Your task to perform on an android device: Open maps Image 0: 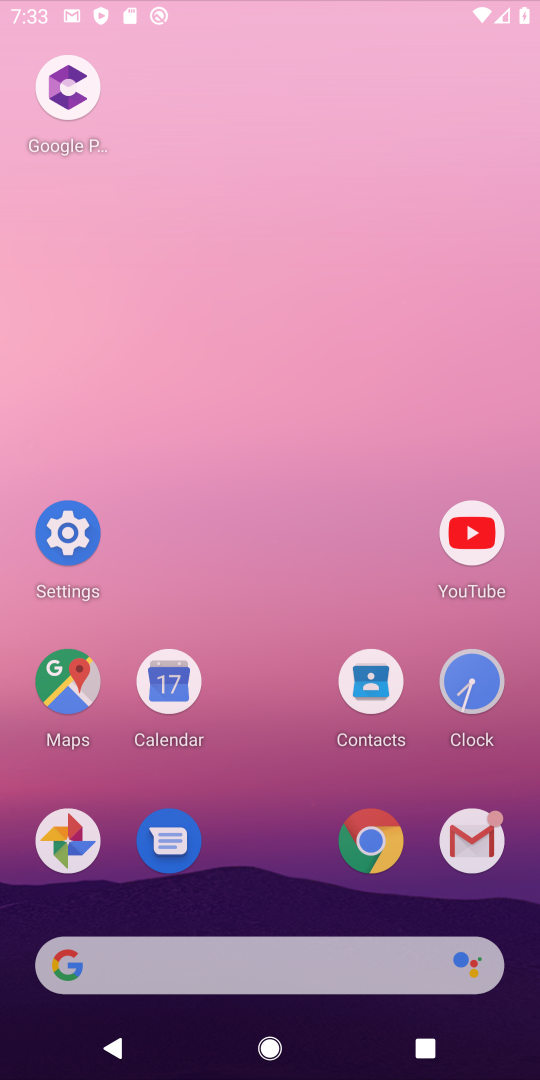
Step 0: press home button
Your task to perform on an android device: Open maps Image 1: 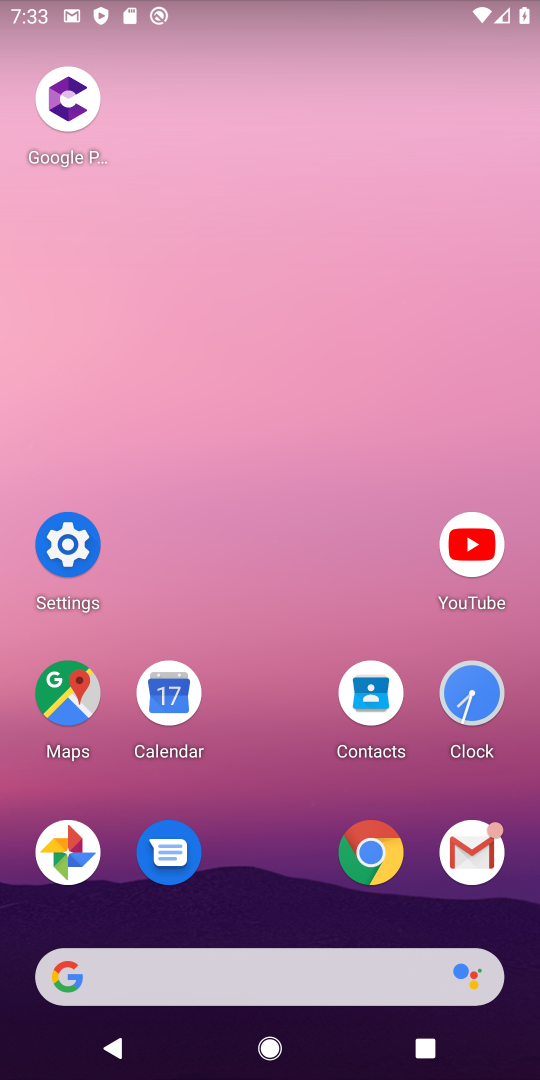
Step 1: click (58, 695)
Your task to perform on an android device: Open maps Image 2: 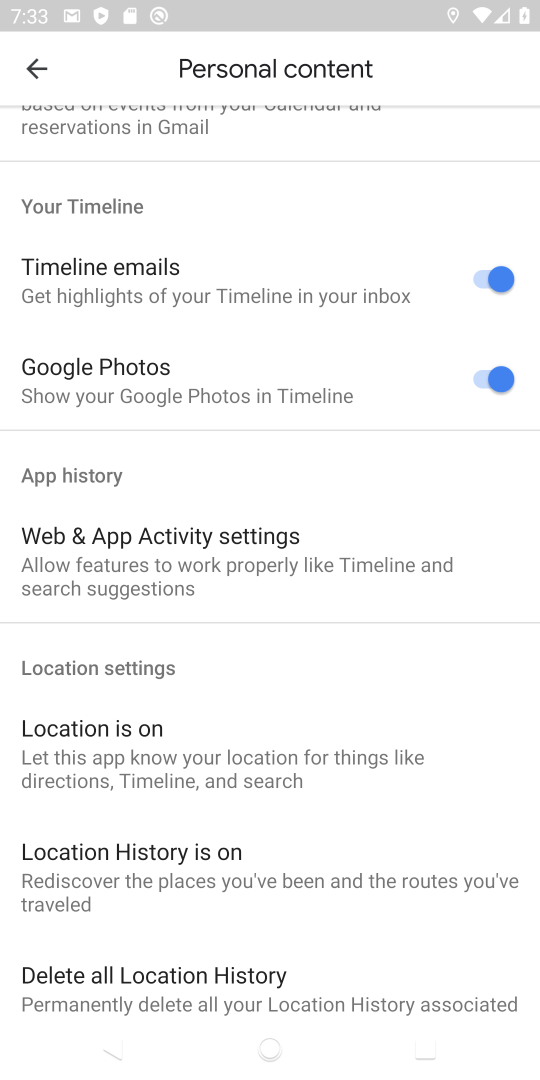
Step 2: click (26, 68)
Your task to perform on an android device: Open maps Image 3: 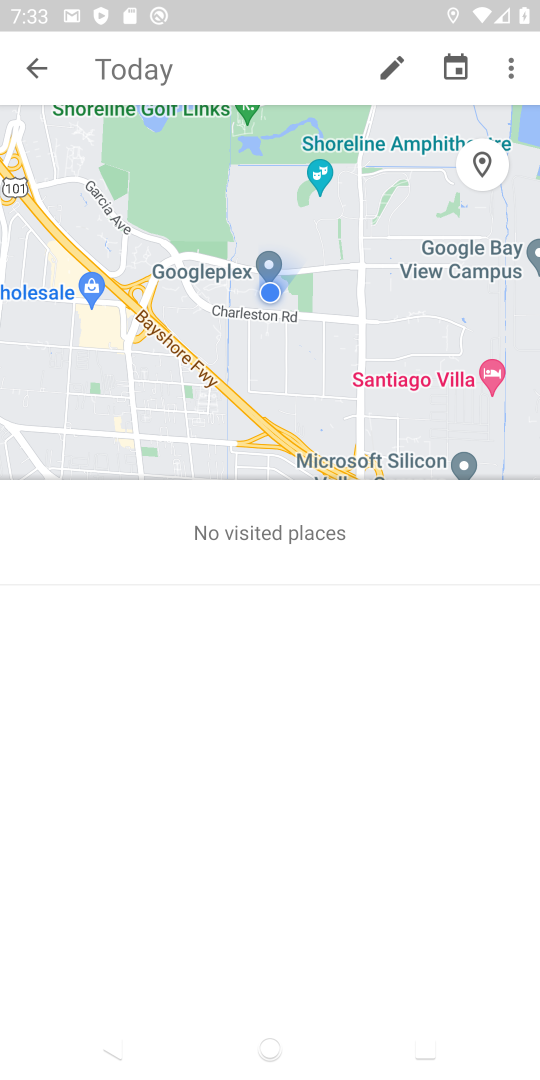
Step 3: click (41, 68)
Your task to perform on an android device: Open maps Image 4: 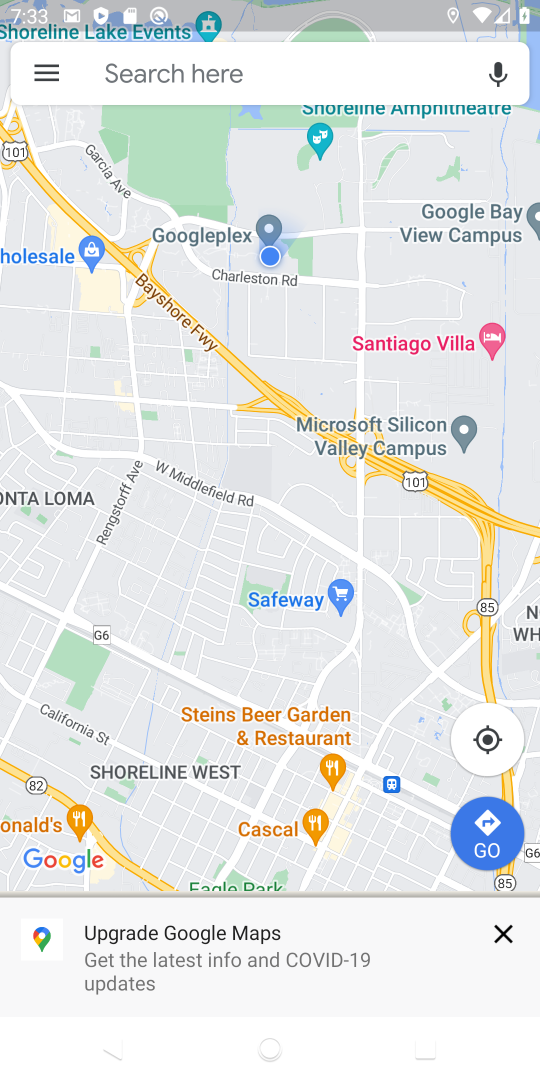
Step 4: task complete